Your task to perform on an android device: Open settings on Google Maps Image 0: 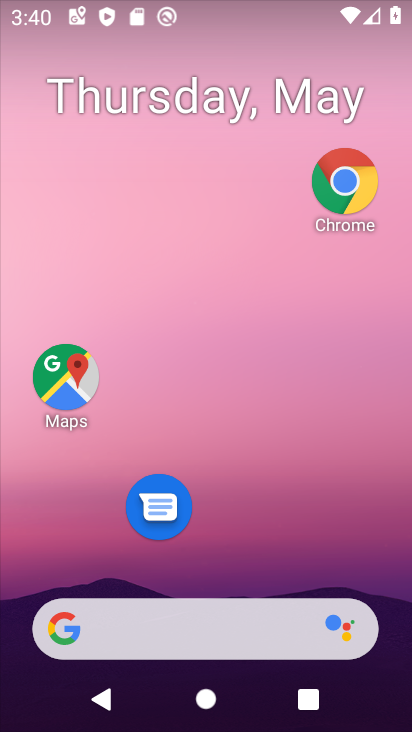
Step 0: drag from (270, 562) to (300, 108)
Your task to perform on an android device: Open settings on Google Maps Image 1: 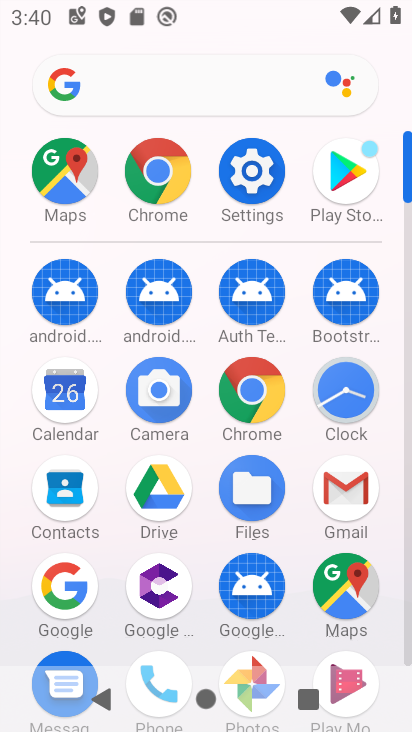
Step 1: click (65, 579)
Your task to perform on an android device: Open settings on Google Maps Image 2: 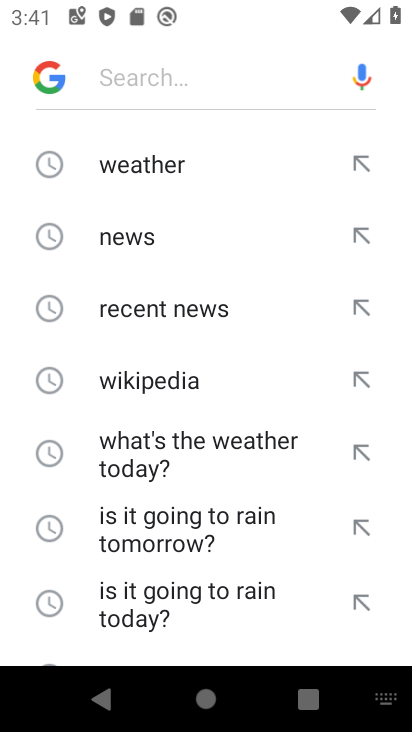
Step 2: press home button
Your task to perform on an android device: Open settings on Google Maps Image 3: 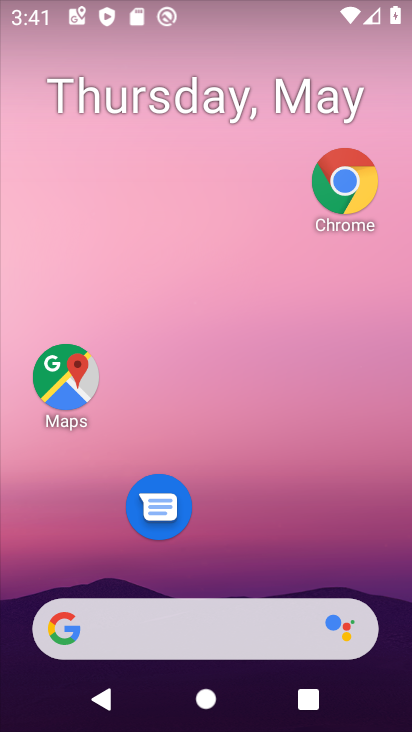
Step 3: click (72, 373)
Your task to perform on an android device: Open settings on Google Maps Image 4: 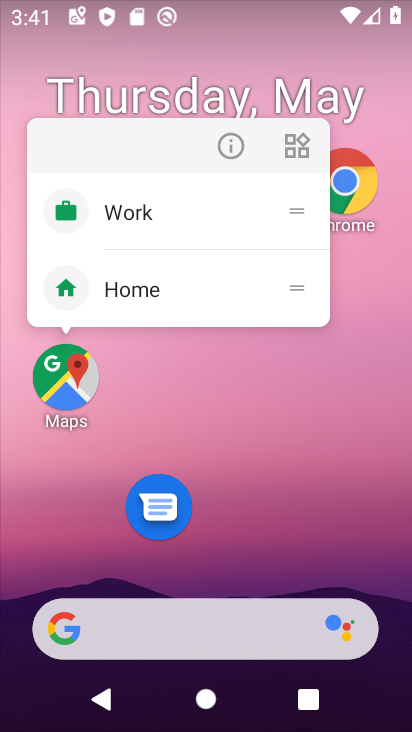
Step 4: click (264, 511)
Your task to perform on an android device: Open settings on Google Maps Image 5: 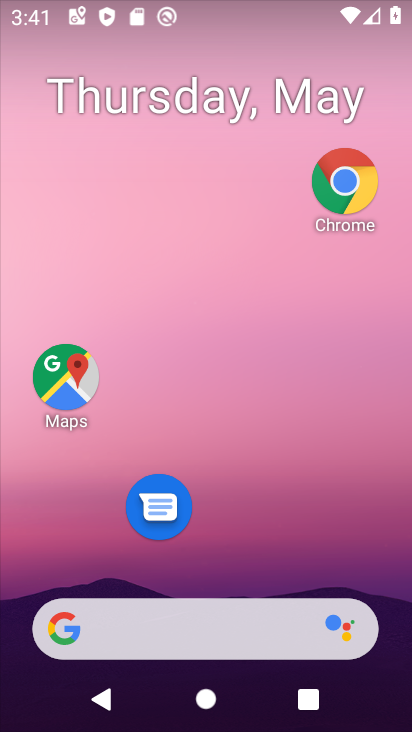
Step 5: drag from (264, 551) to (282, 99)
Your task to perform on an android device: Open settings on Google Maps Image 6: 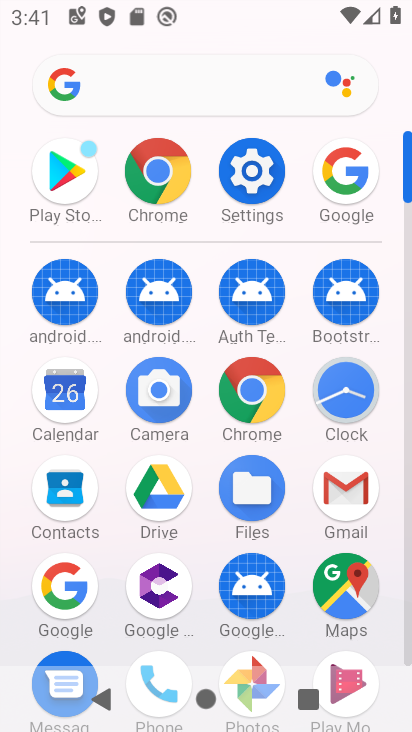
Step 6: click (352, 586)
Your task to perform on an android device: Open settings on Google Maps Image 7: 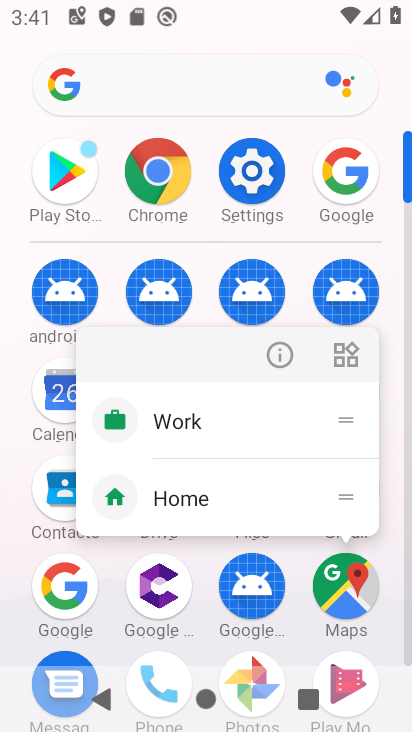
Step 7: click (352, 586)
Your task to perform on an android device: Open settings on Google Maps Image 8: 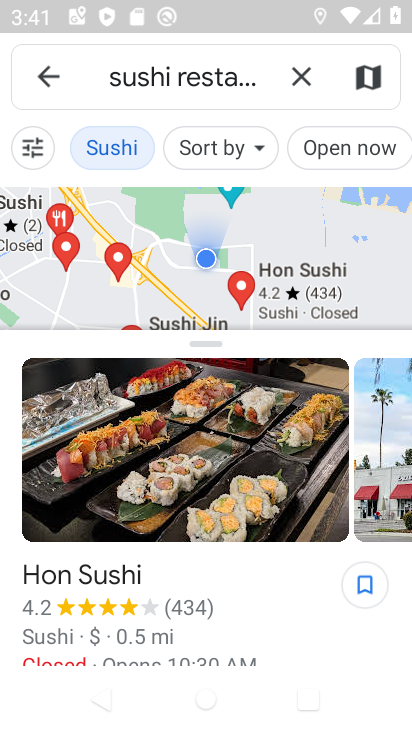
Step 8: task complete